Your task to perform on an android device: What's the weather going to be this weekend? Image 0: 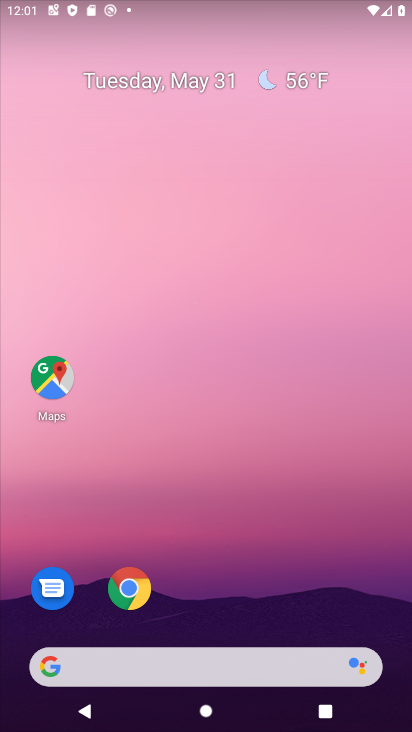
Step 0: click (183, 658)
Your task to perform on an android device: What's the weather going to be this weekend? Image 1: 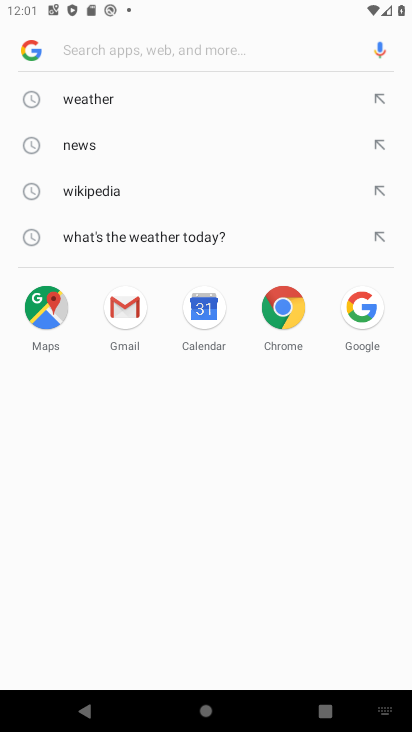
Step 1: click (122, 95)
Your task to perform on an android device: What's the weather going to be this weekend? Image 2: 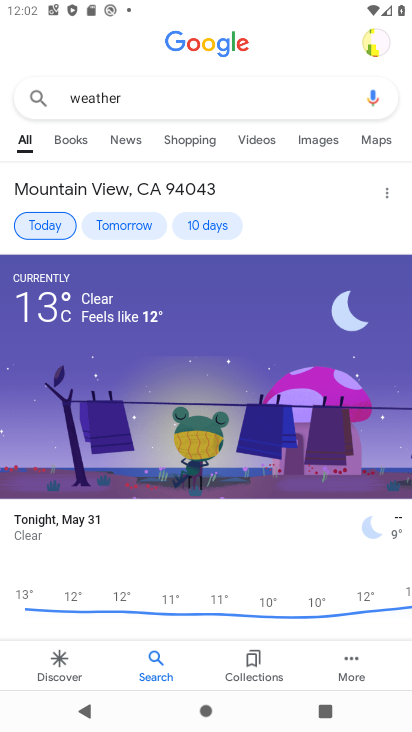
Step 2: task complete